Your task to perform on an android device: Search for usb-c to usb-a on costco, select the first entry, add it to the cart, then select checkout. Image 0: 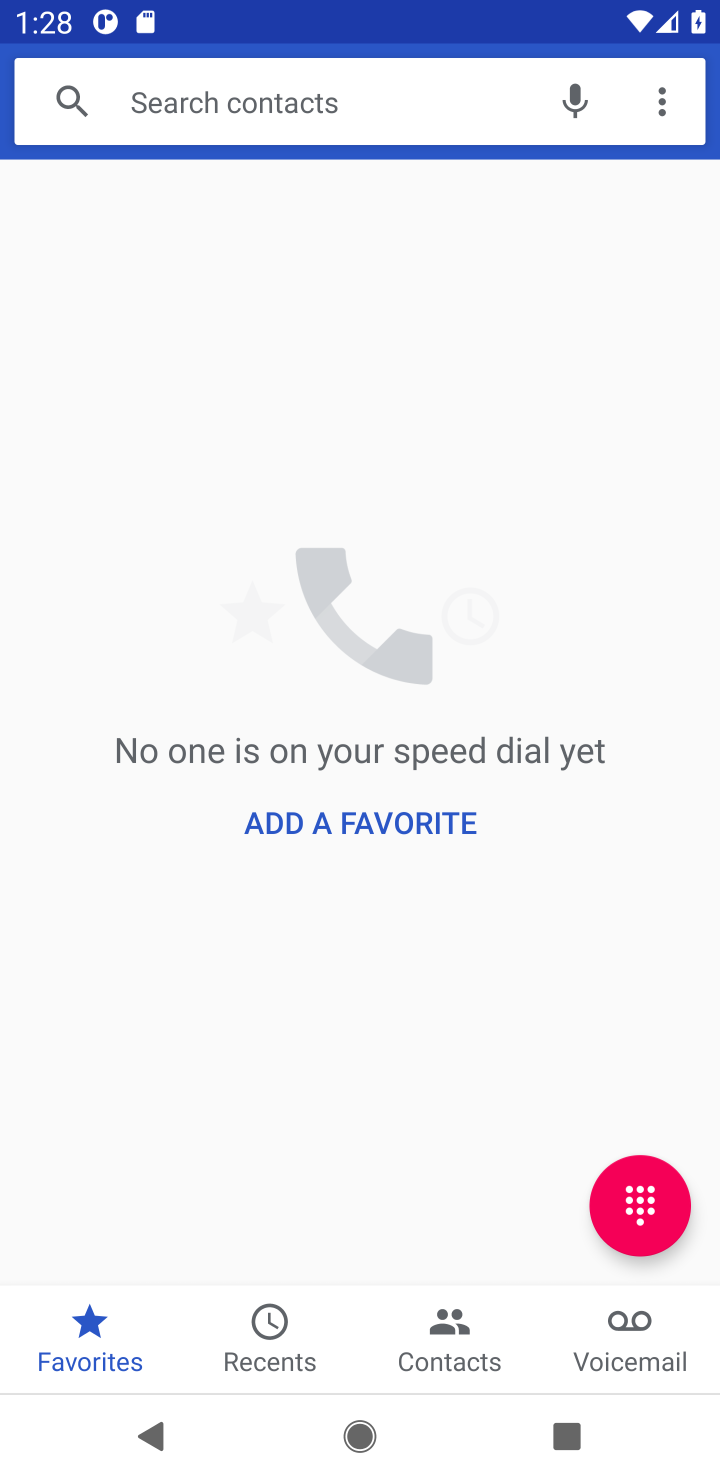
Step 0: press home button
Your task to perform on an android device: Search for usb-c to usb-a on costco, select the first entry, add it to the cart, then select checkout. Image 1: 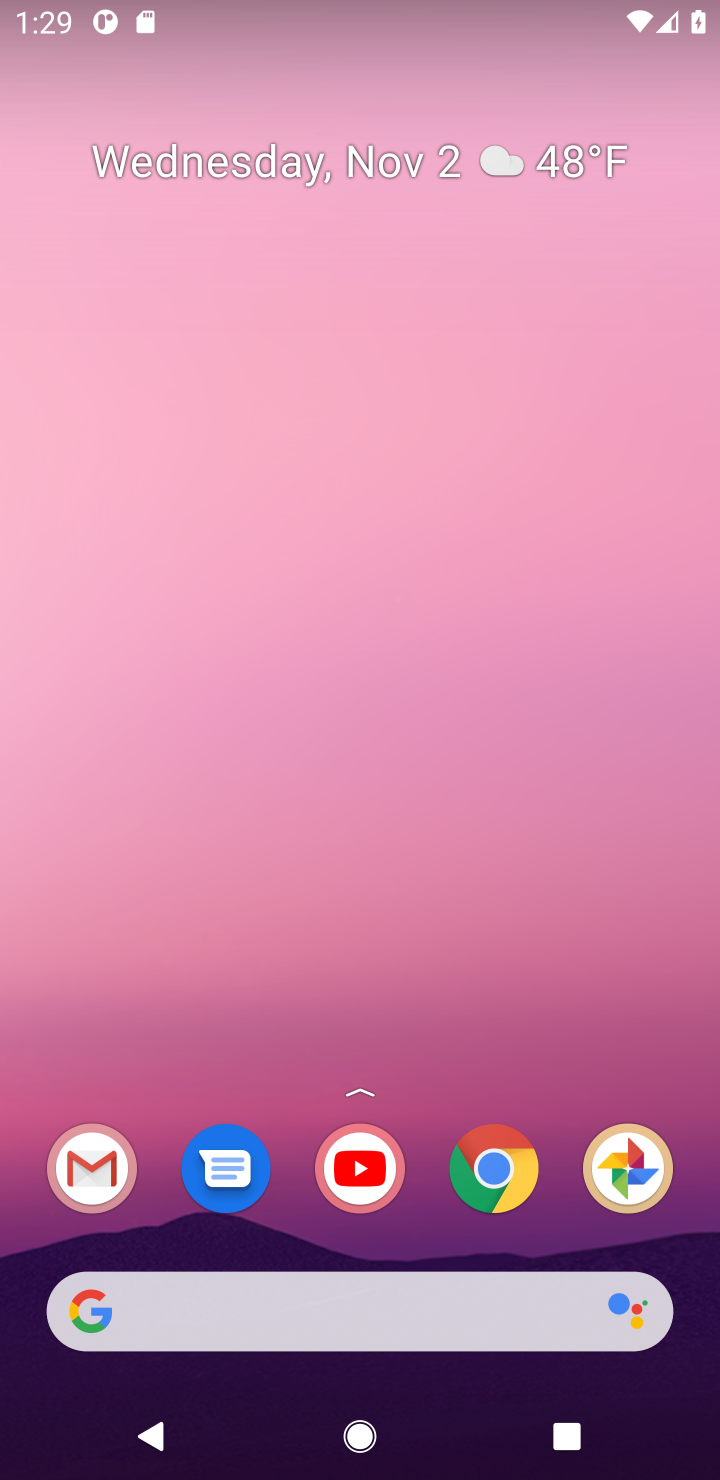
Step 1: click (314, 1327)
Your task to perform on an android device: Search for usb-c to usb-a on costco, select the first entry, add it to the cart, then select checkout. Image 2: 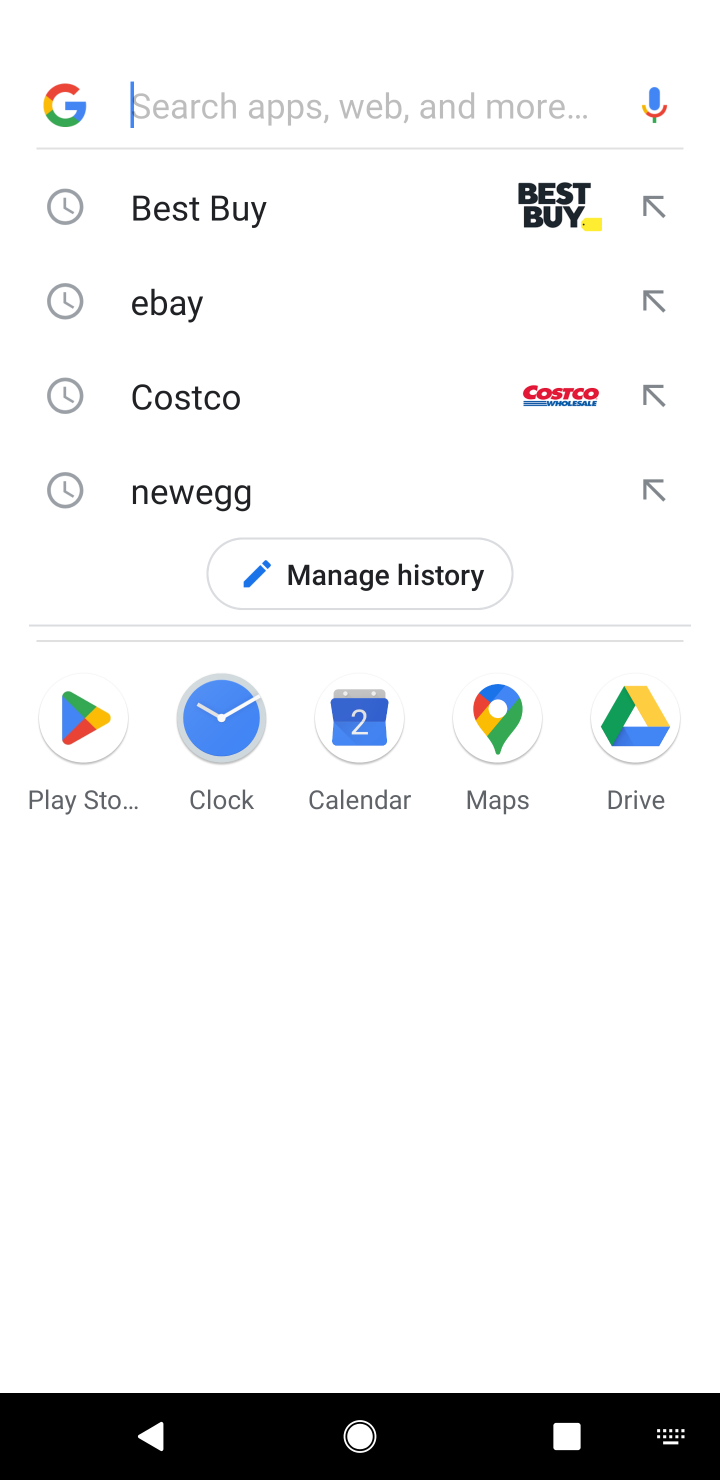
Step 2: click (421, 398)
Your task to perform on an android device: Search for usb-c to usb-a on costco, select the first entry, add it to the cart, then select checkout. Image 3: 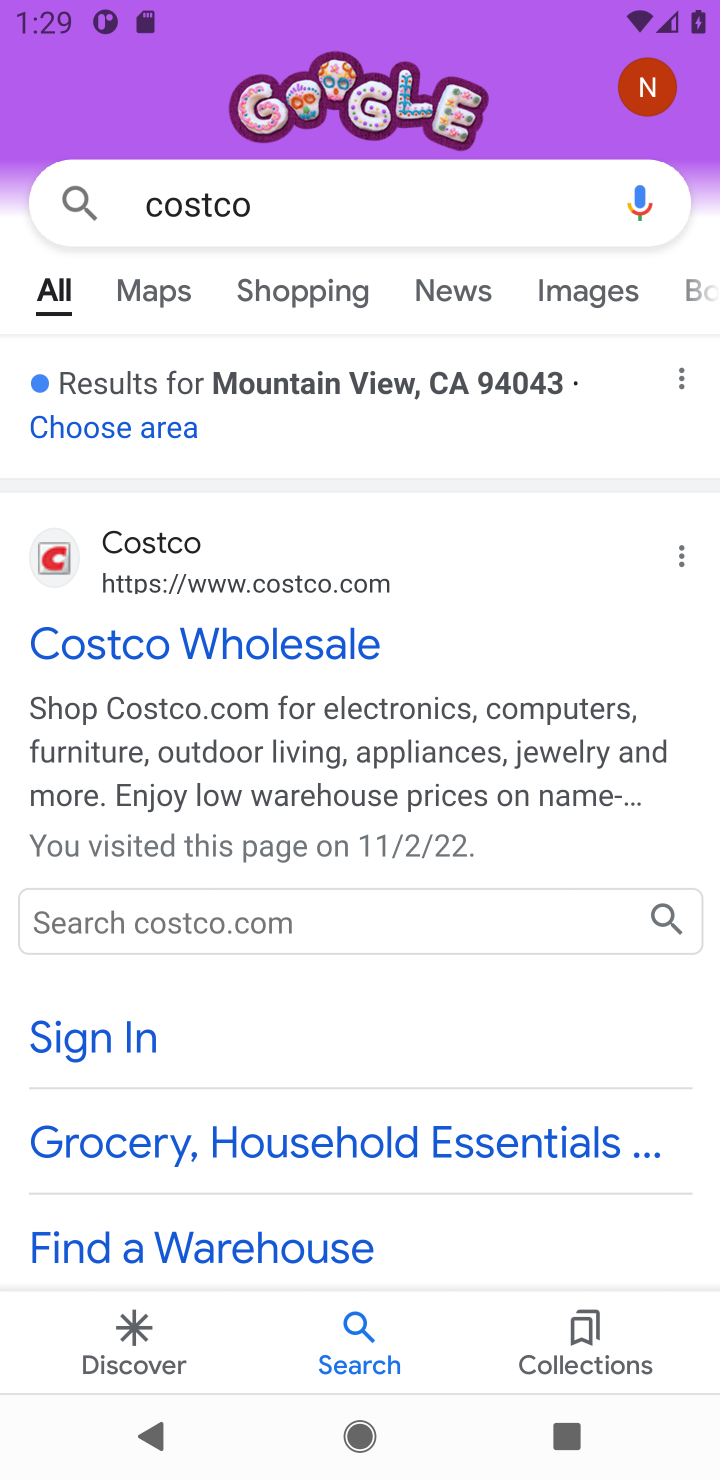
Step 3: click (145, 563)
Your task to perform on an android device: Search for usb-c to usb-a on costco, select the first entry, add it to the cart, then select checkout. Image 4: 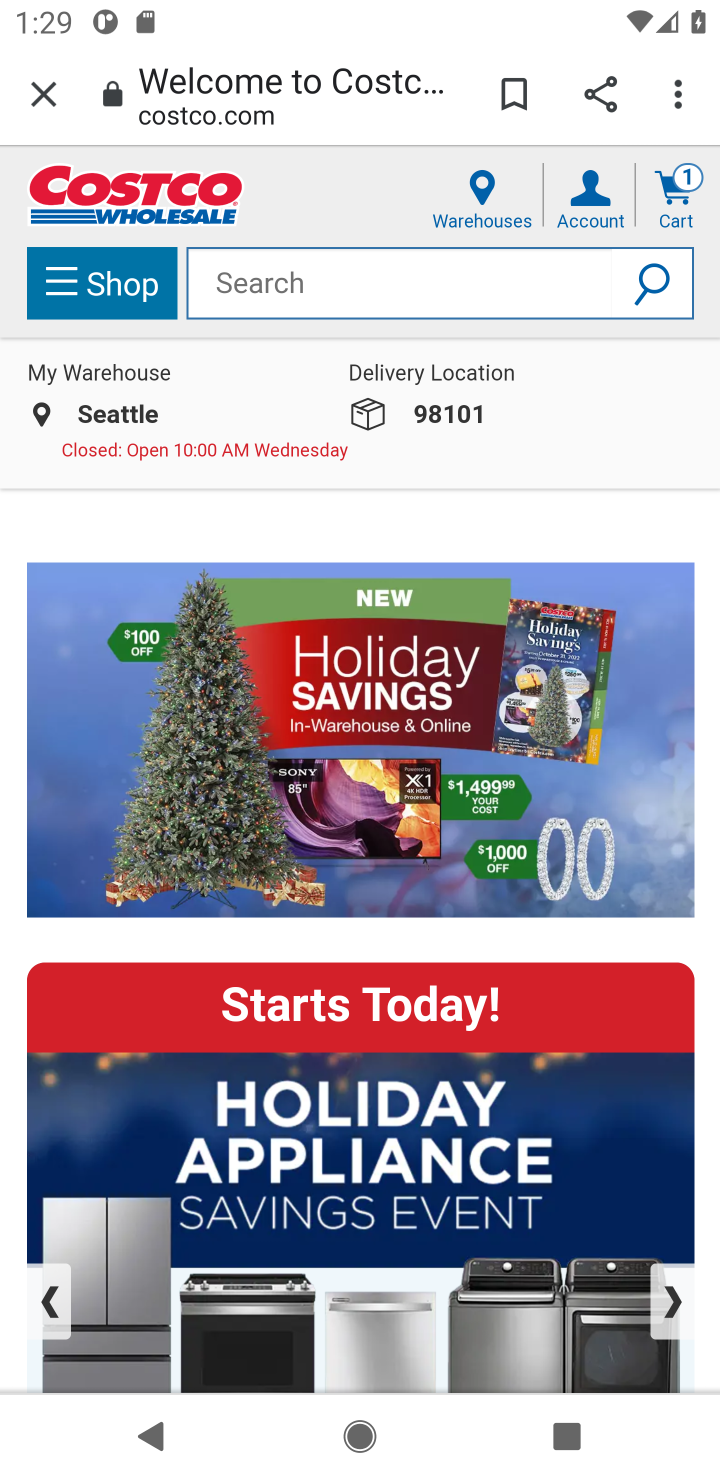
Step 4: click (394, 266)
Your task to perform on an android device: Search for usb-c to usb-a on costco, select the first entry, add it to the cart, then select checkout. Image 5: 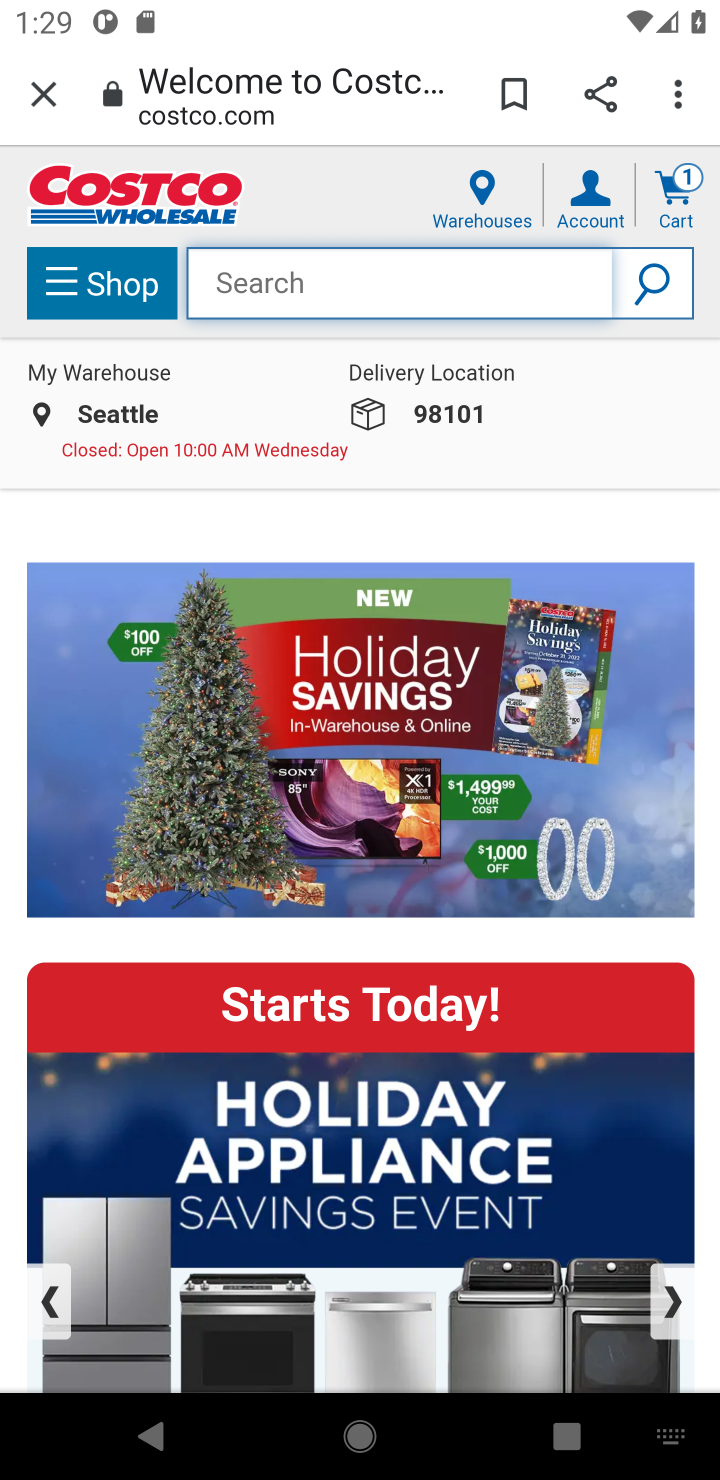
Step 5: type "costco"
Your task to perform on an android device: Search for usb-c to usb-a on costco, select the first entry, add it to the cart, then select checkout. Image 6: 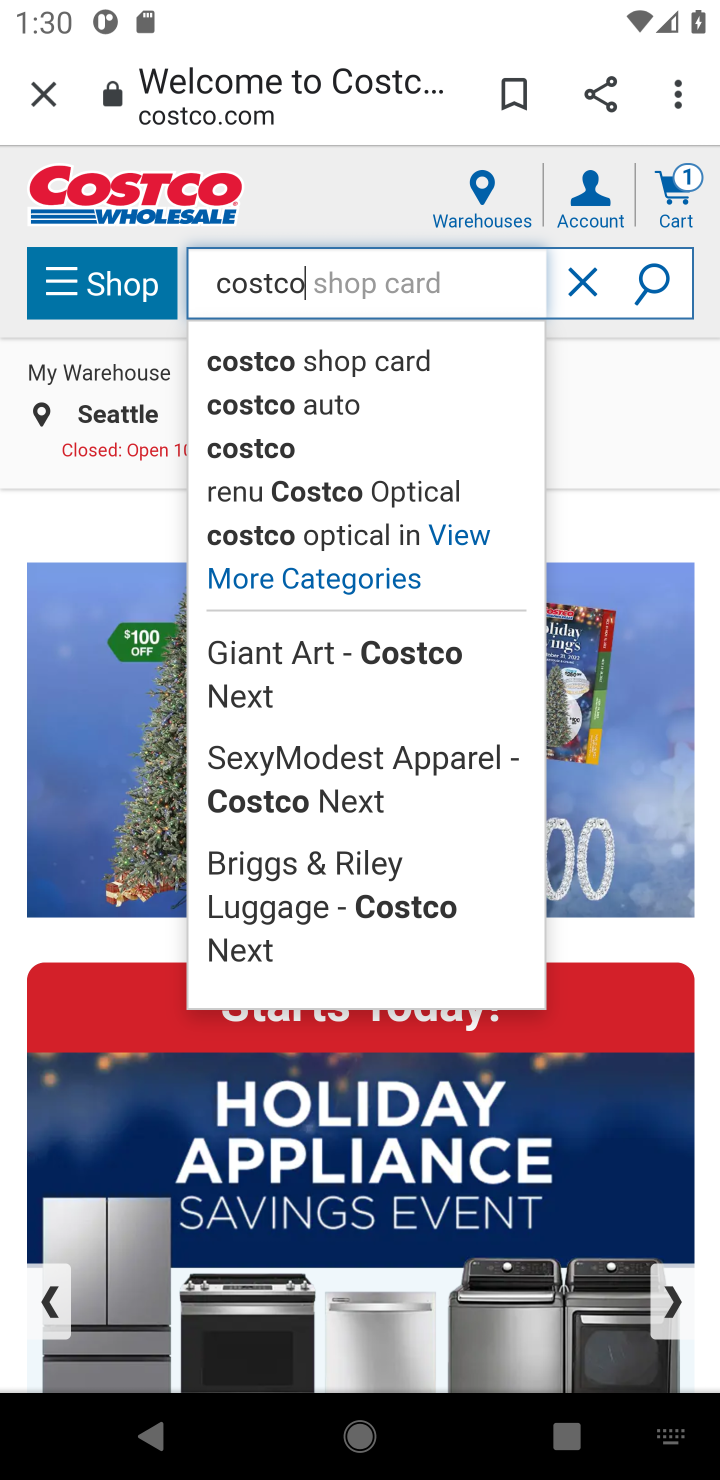
Step 6: click (585, 290)
Your task to perform on an android device: Search for usb-c to usb-a on costco, select the first entry, add it to the cart, then select checkout. Image 7: 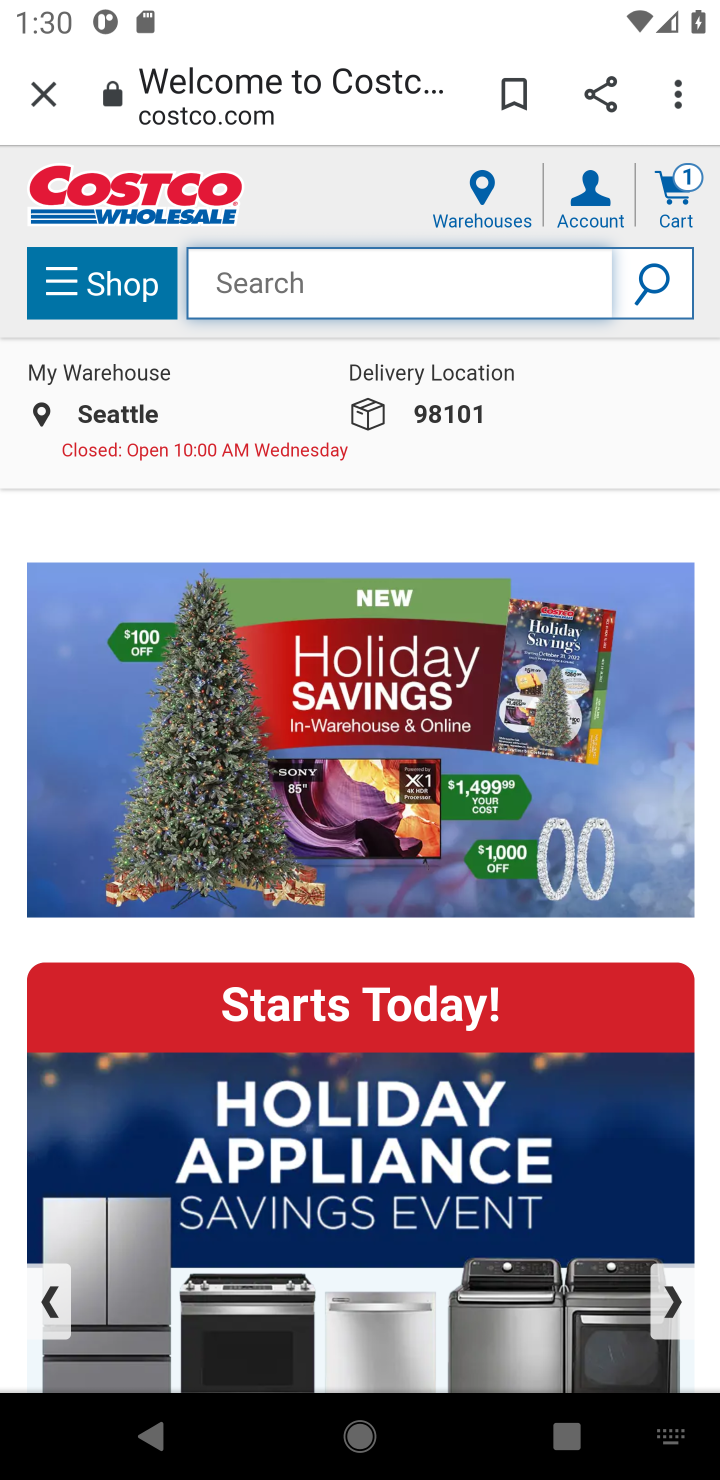
Step 7: type "usb-c to usb-a "
Your task to perform on an android device: Search for usb-c to usb-a on costco, select the first entry, add it to the cart, then select checkout. Image 8: 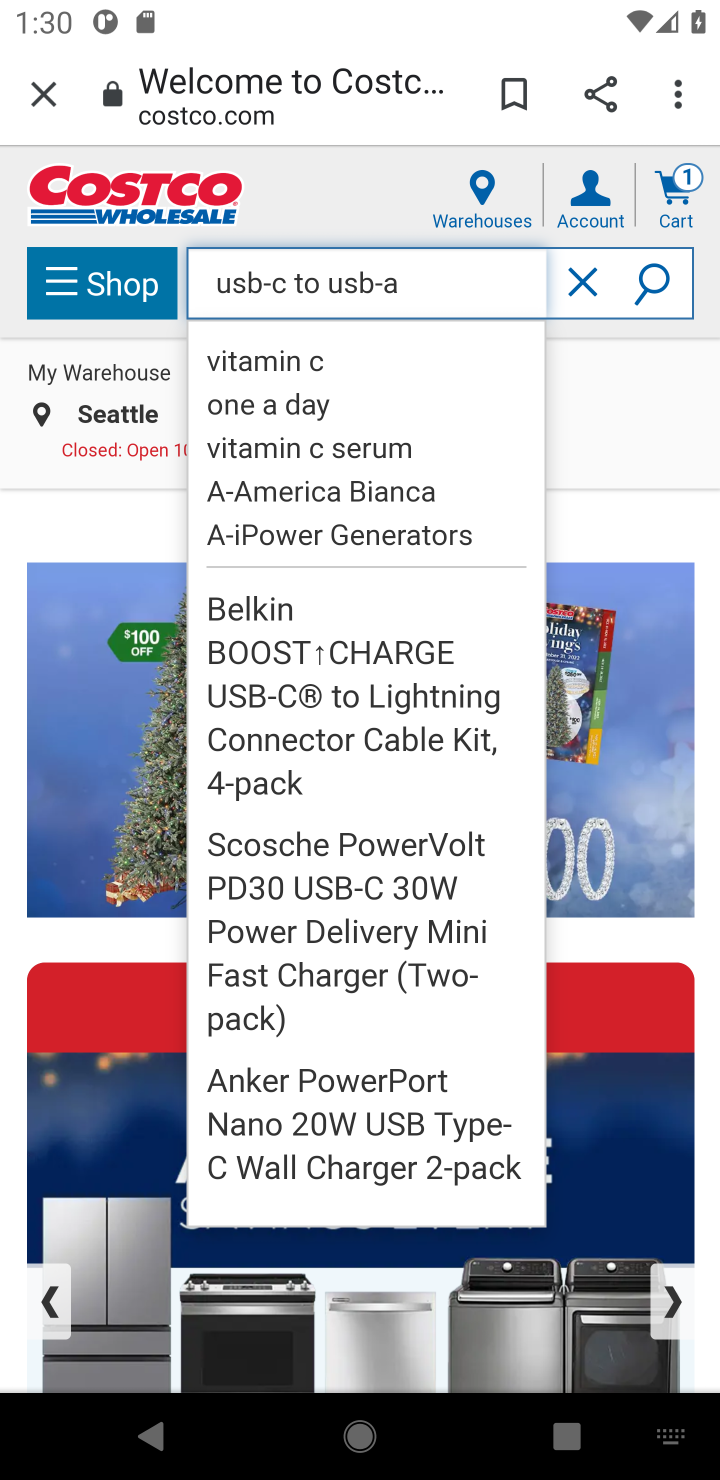
Step 8: click (662, 290)
Your task to perform on an android device: Search for usb-c to usb-a on costco, select the first entry, add it to the cart, then select checkout. Image 9: 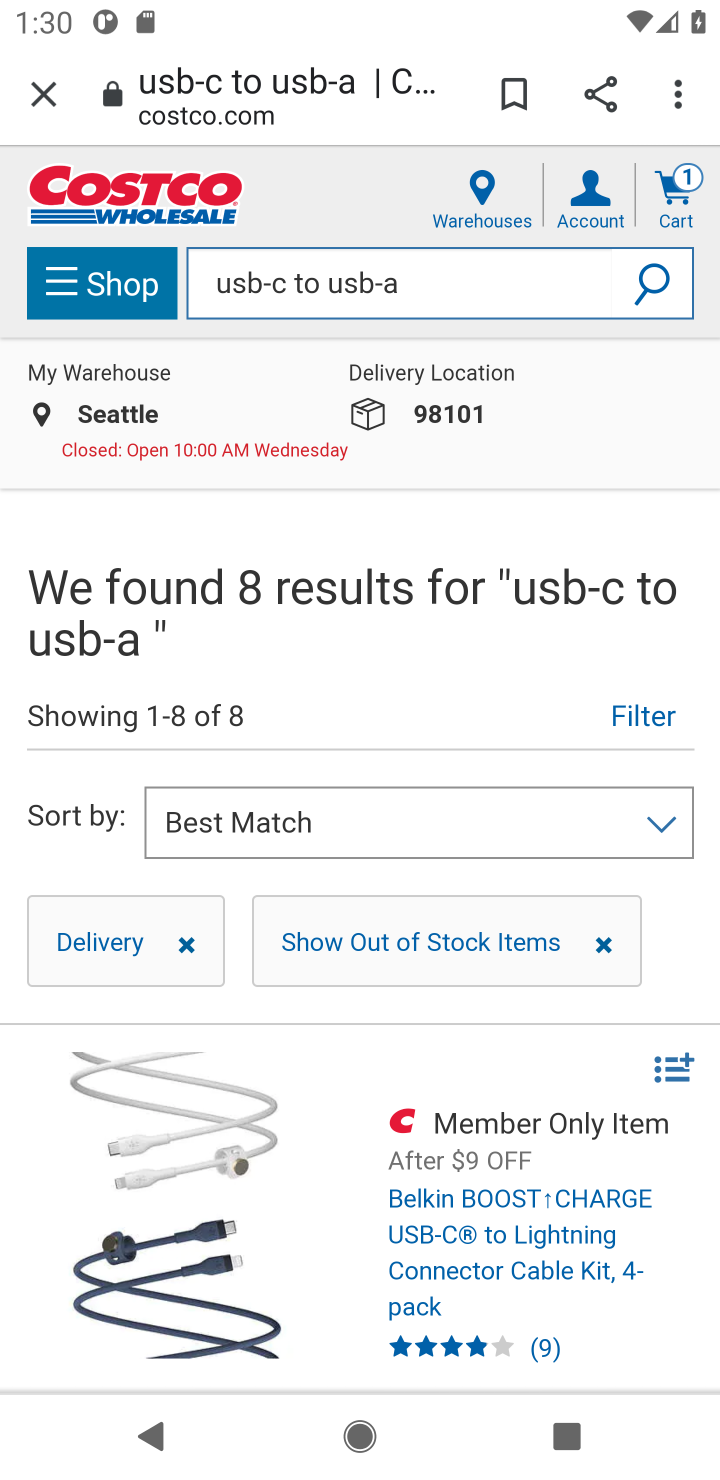
Step 9: click (204, 1225)
Your task to perform on an android device: Search for usb-c to usb-a on costco, select the first entry, add it to the cart, then select checkout. Image 10: 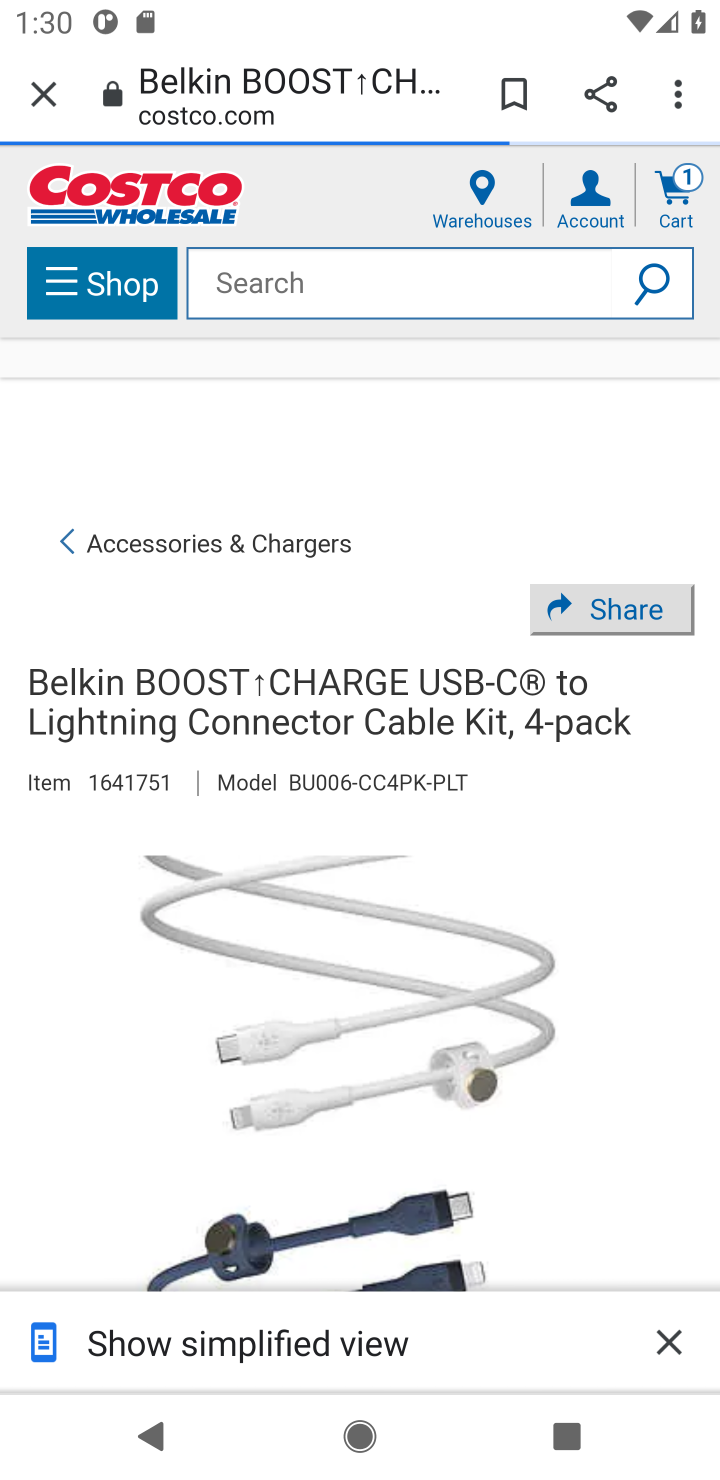
Step 10: drag from (317, 1155) to (429, 803)
Your task to perform on an android device: Search for usb-c to usb-a on costco, select the first entry, add it to the cart, then select checkout. Image 11: 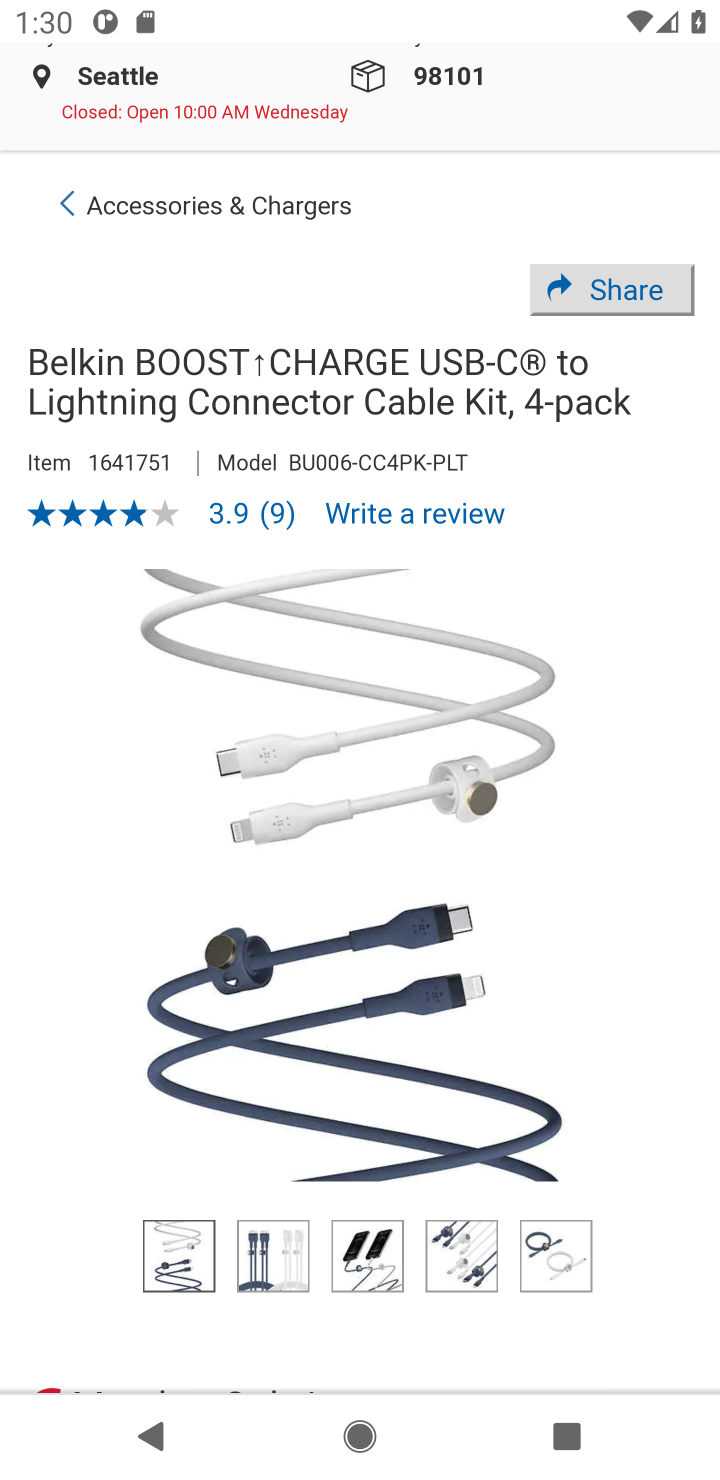
Step 11: click (204, 1217)
Your task to perform on an android device: Search for usb-c to usb-a on costco, select the first entry, add it to the cart, then select checkout. Image 12: 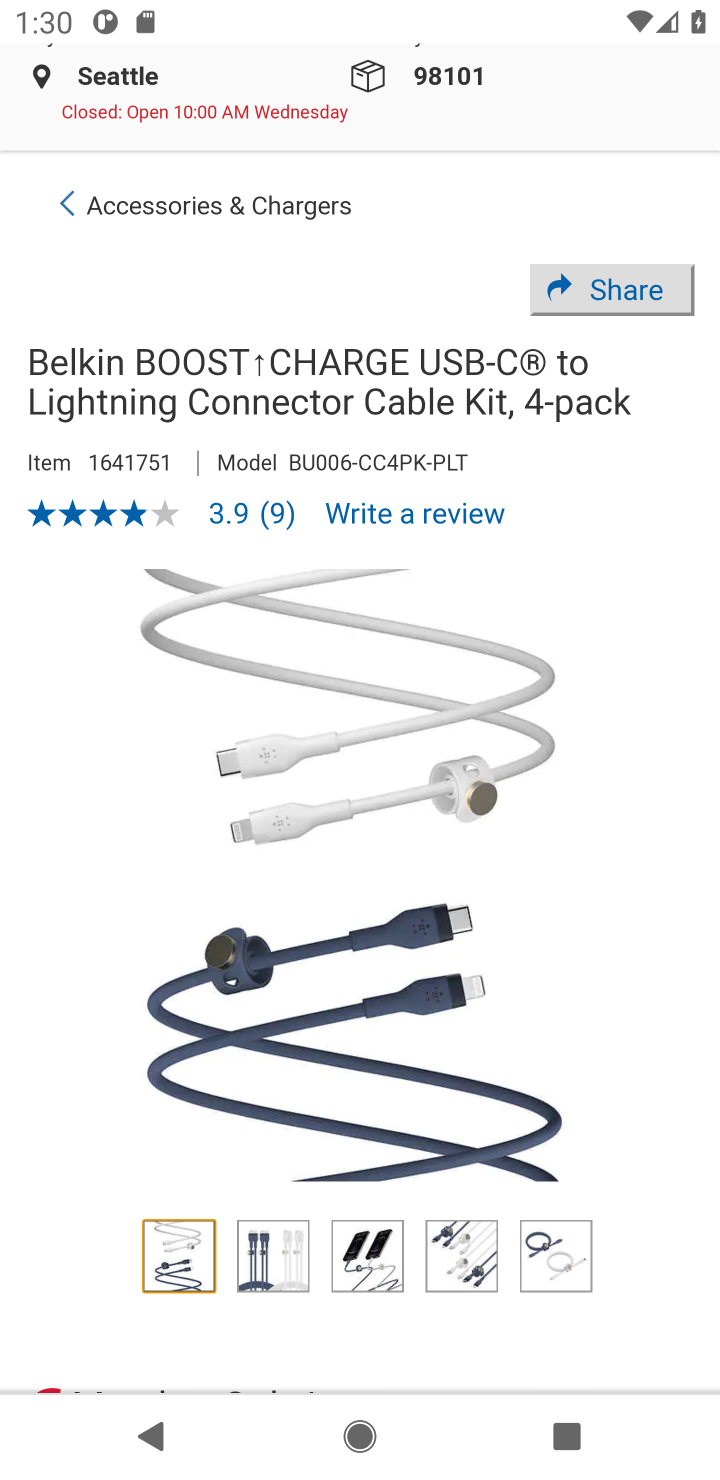
Step 12: drag from (335, 1002) to (354, 481)
Your task to perform on an android device: Search for usb-c to usb-a on costco, select the first entry, add it to the cart, then select checkout. Image 13: 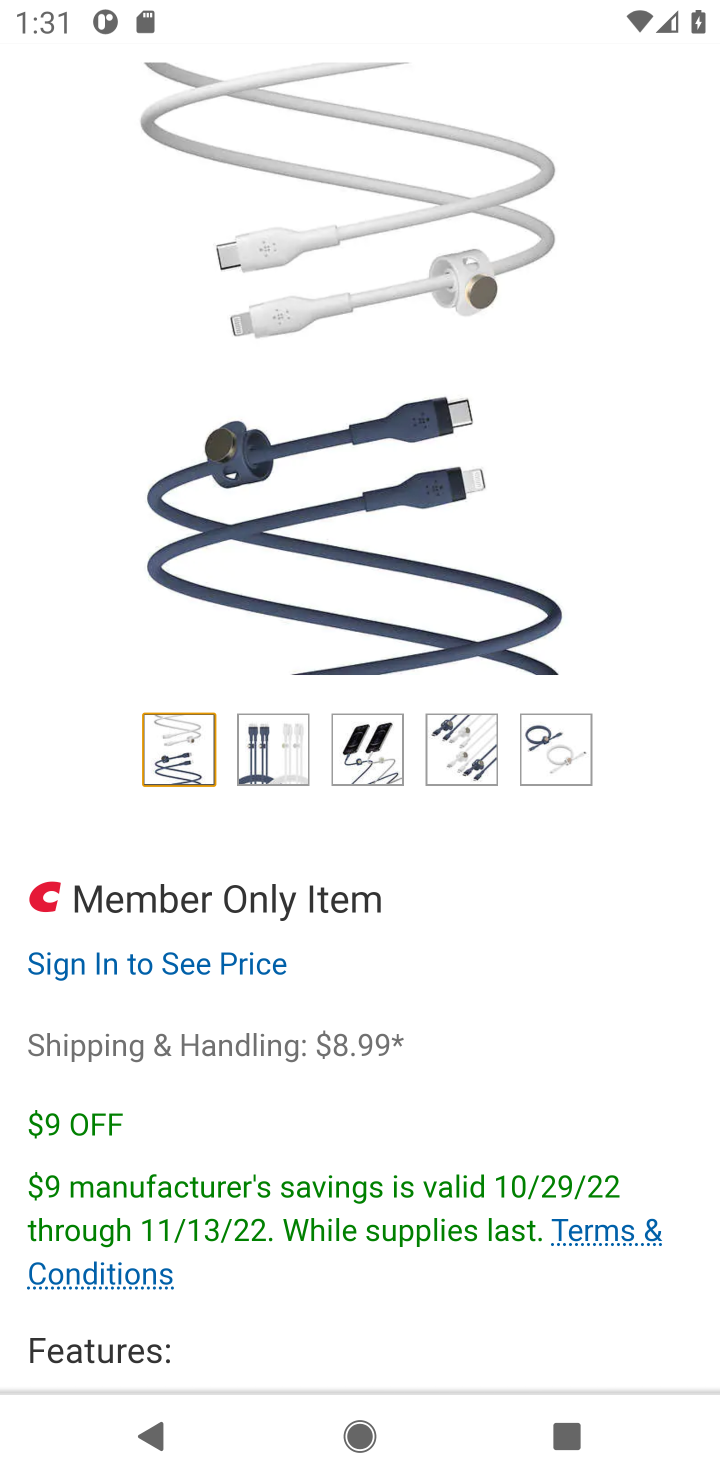
Step 13: drag from (427, 915) to (467, 523)
Your task to perform on an android device: Search for usb-c to usb-a on costco, select the first entry, add it to the cart, then select checkout. Image 14: 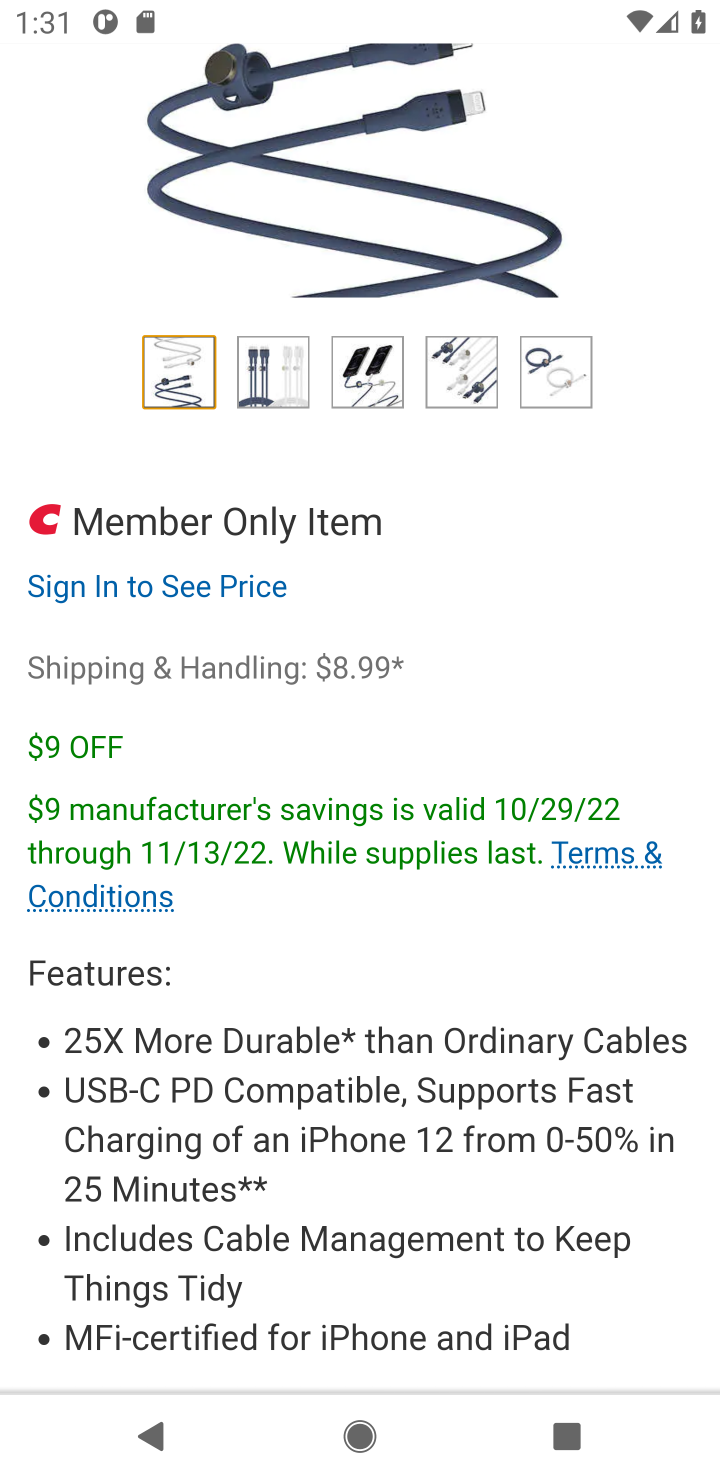
Step 14: drag from (482, 1051) to (508, 734)
Your task to perform on an android device: Search for usb-c to usb-a on costco, select the first entry, add it to the cart, then select checkout. Image 15: 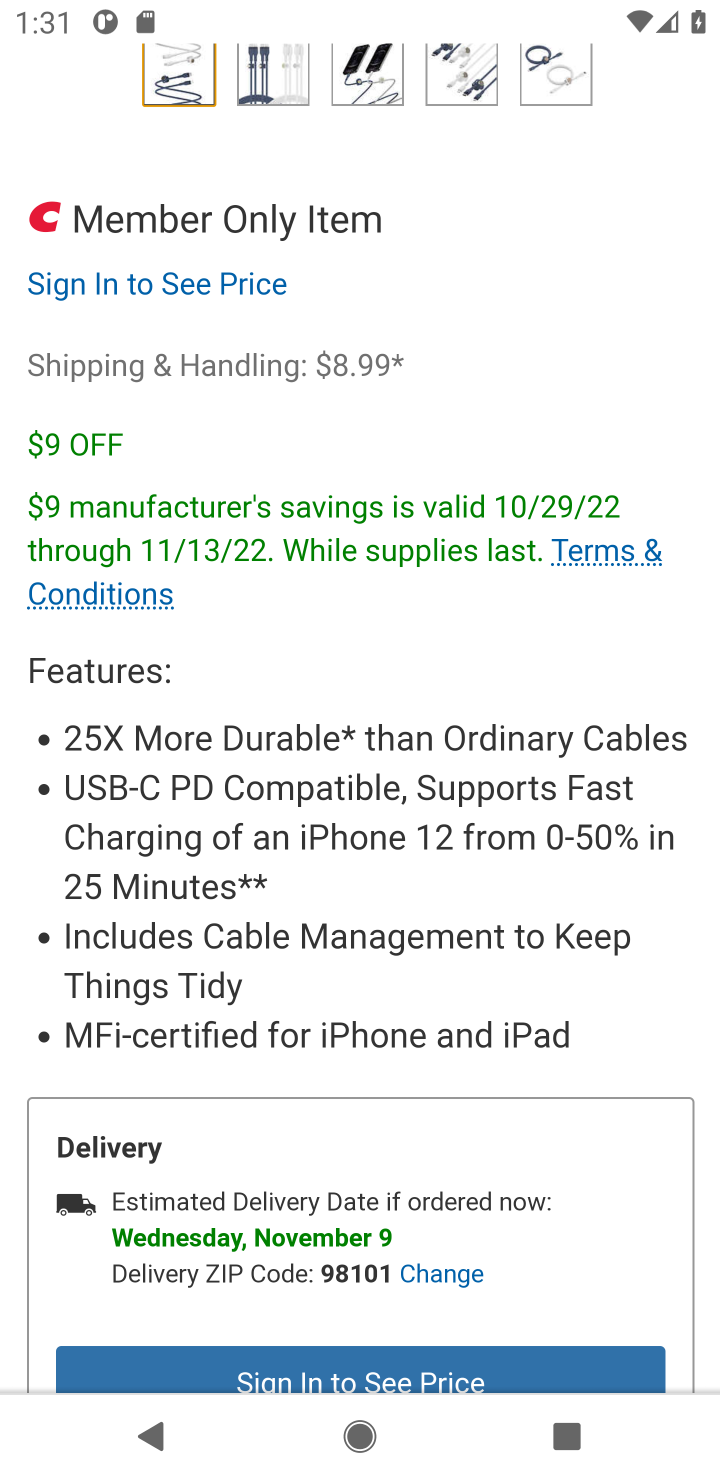
Step 15: drag from (501, 646) to (501, 274)
Your task to perform on an android device: Search for usb-c to usb-a on costco, select the first entry, add it to the cart, then select checkout. Image 16: 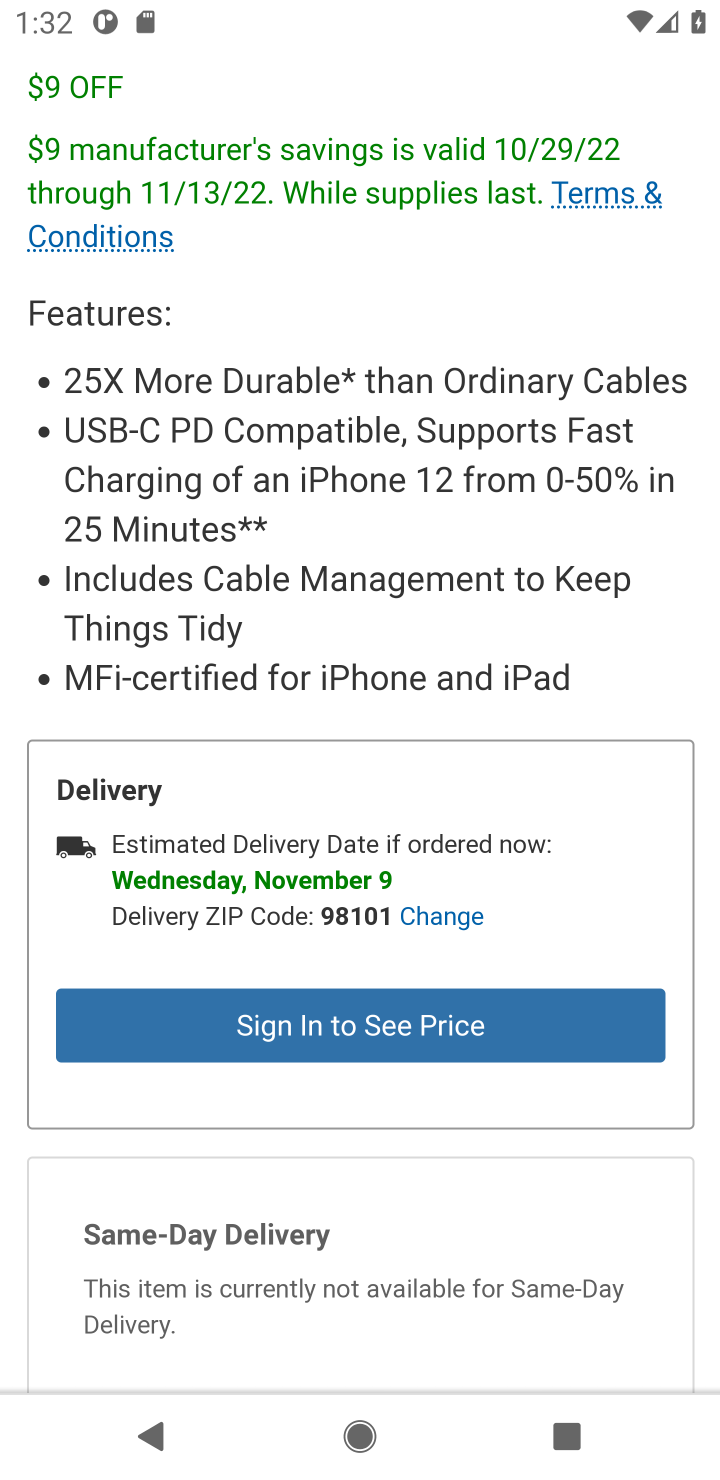
Step 16: drag from (360, 1059) to (360, 564)
Your task to perform on an android device: Search for usb-c to usb-a on costco, select the first entry, add it to the cart, then select checkout. Image 17: 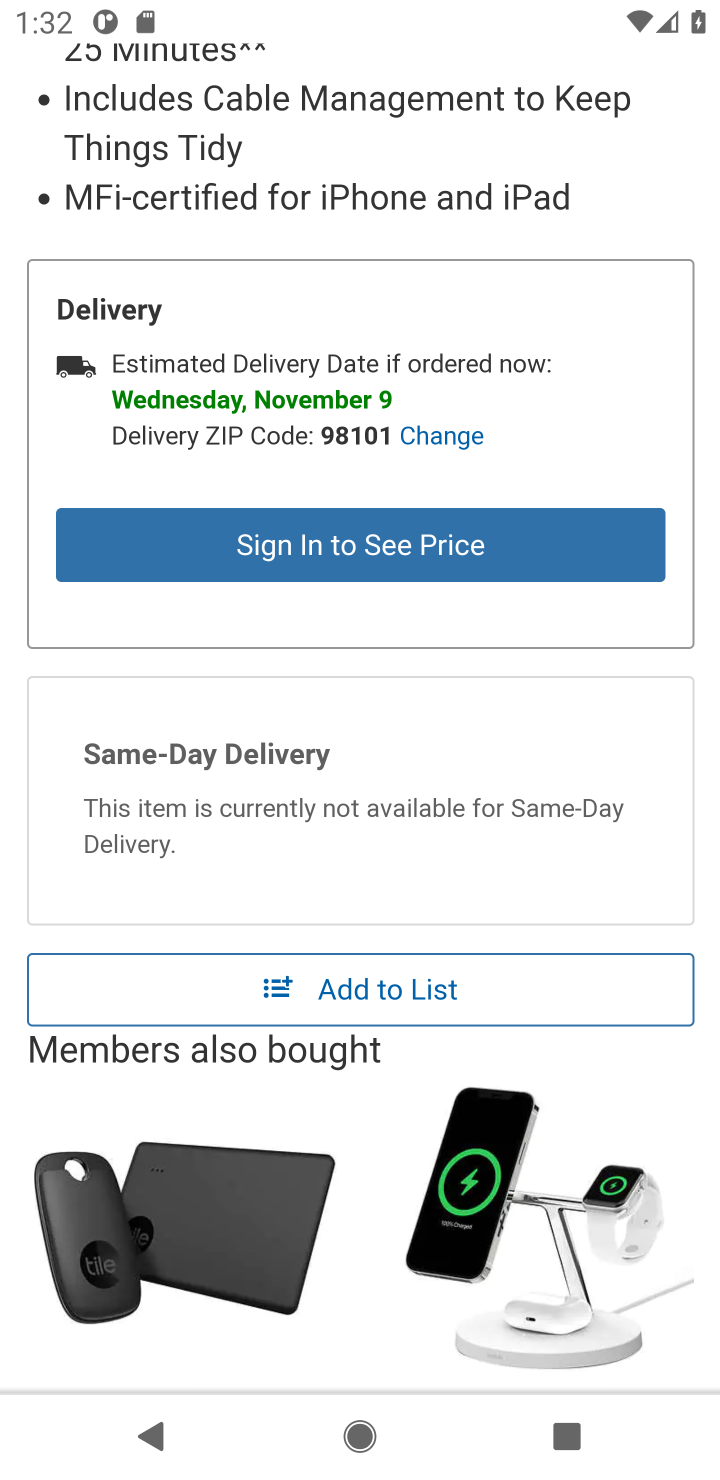
Step 17: click (402, 987)
Your task to perform on an android device: Search for usb-c to usb-a on costco, select the first entry, add it to the cart, then select checkout. Image 18: 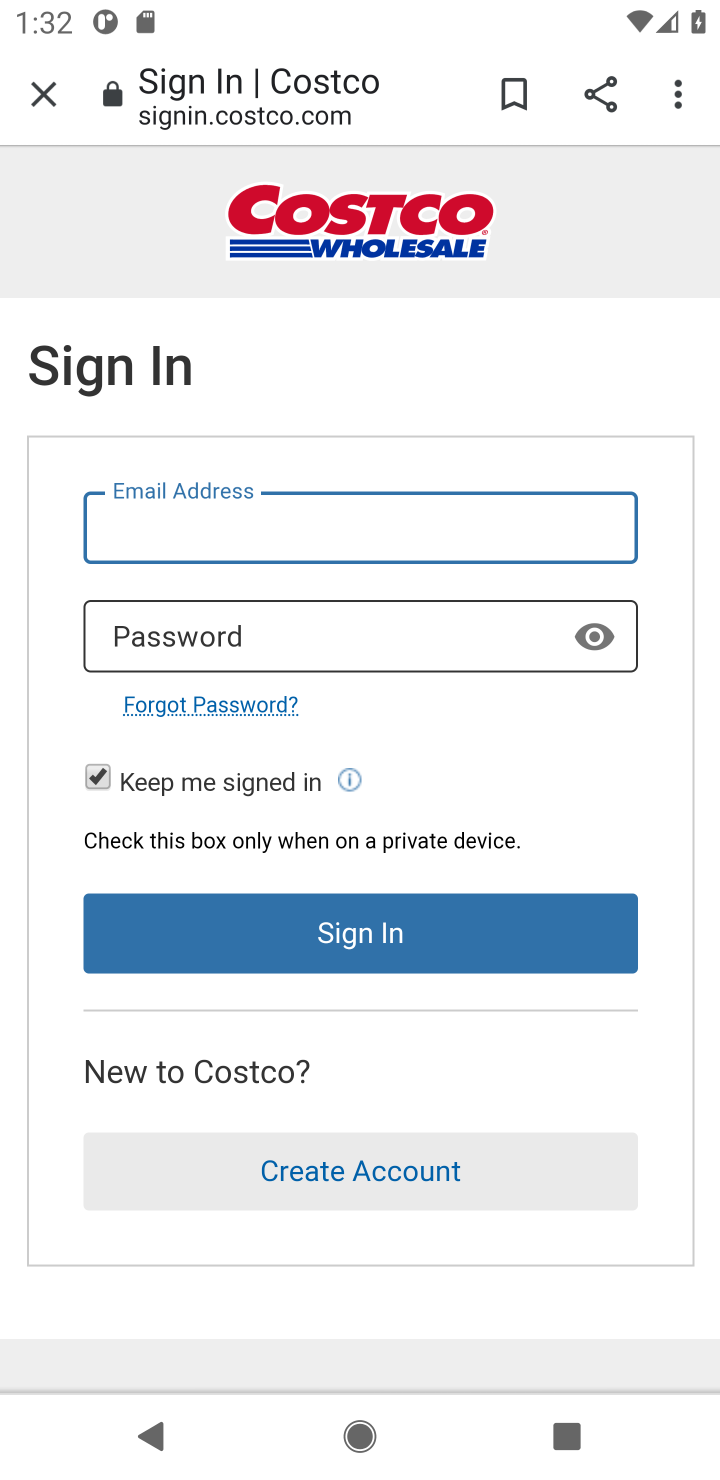
Step 18: task complete